Your task to perform on an android device: Open calendar and show me the fourth week of next month Image 0: 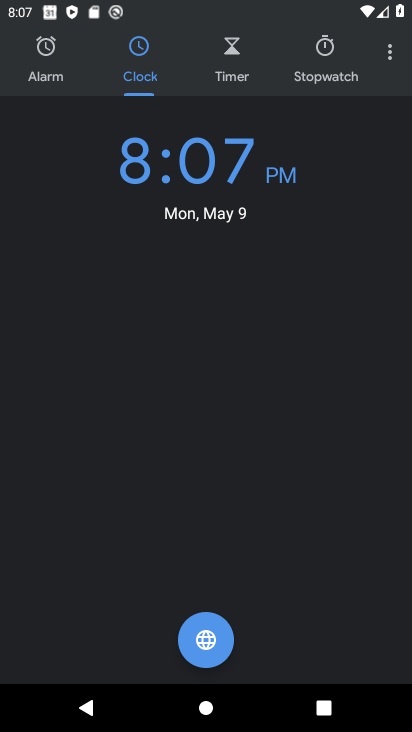
Step 0: press home button
Your task to perform on an android device: Open calendar and show me the fourth week of next month Image 1: 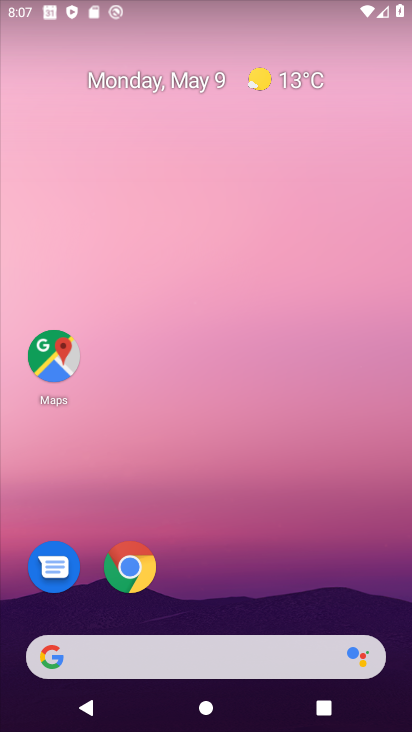
Step 1: drag from (253, 494) to (262, 31)
Your task to perform on an android device: Open calendar and show me the fourth week of next month Image 2: 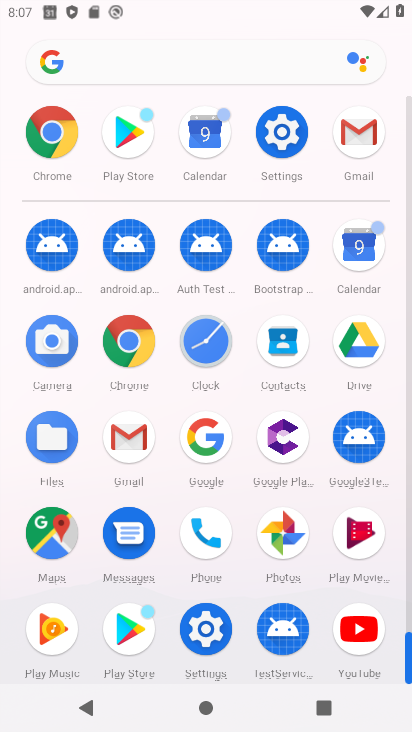
Step 2: click (197, 127)
Your task to perform on an android device: Open calendar and show me the fourth week of next month Image 3: 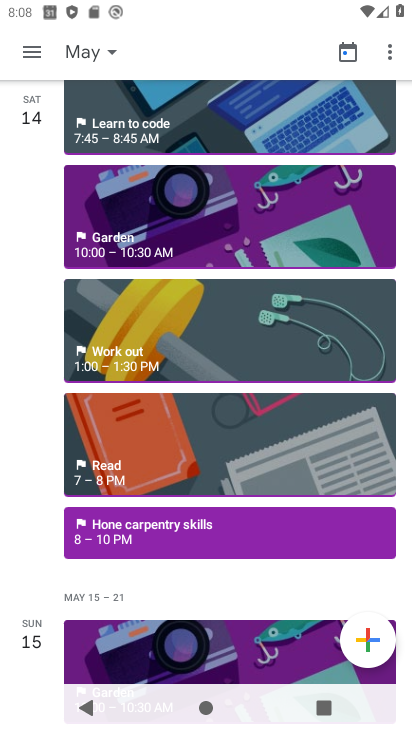
Step 3: click (39, 46)
Your task to perform on an android device: Open calendar and show me the fourth week of next month Image 4: 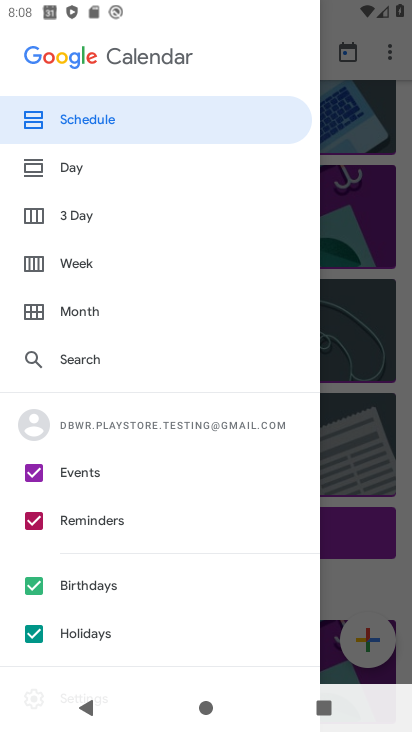
Step 4: click (62, 304)
Your task to perform on an android device: Open calendar and show me the fourth week of next month Image 5: 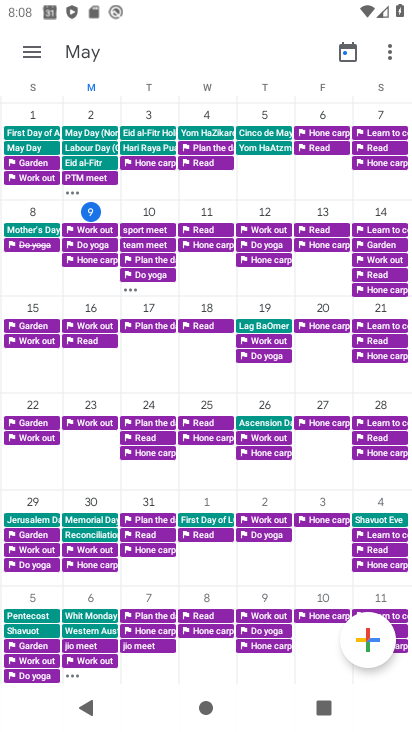
Step 5: drag from (383, 380) to (0, 294)
Your task to perform on an android device: Open calendar and show me the fourth week of next month Image 6: 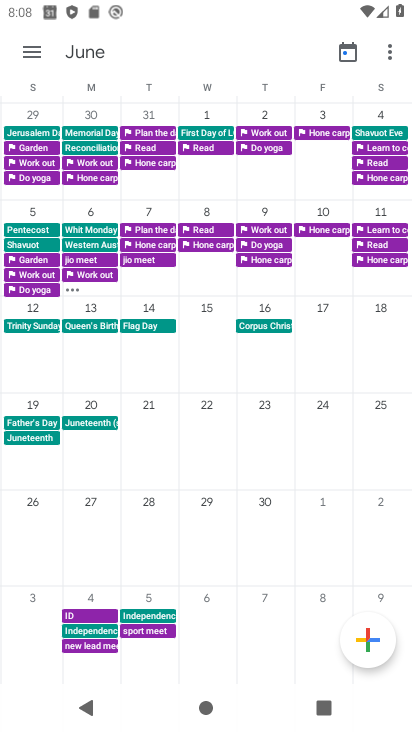
Step 6: click (39, 506)
Your task to perform on an android device: Open calendar and show me the fourth week of next month Image 7: 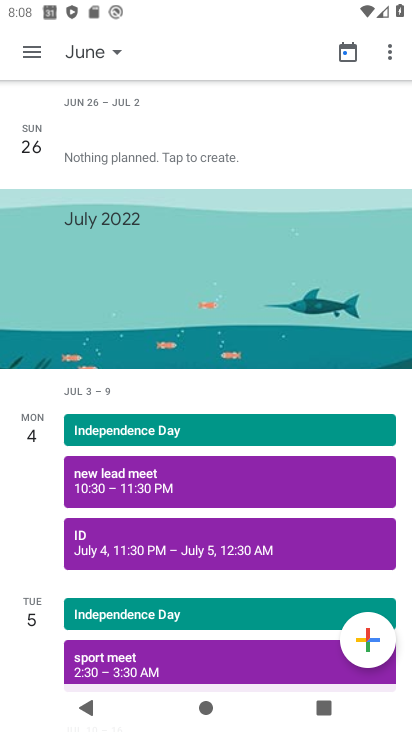
Step 7: click (35, 51)
Your task to perform on an android device: Open calendar and show me the fourth week of next month Image 8: 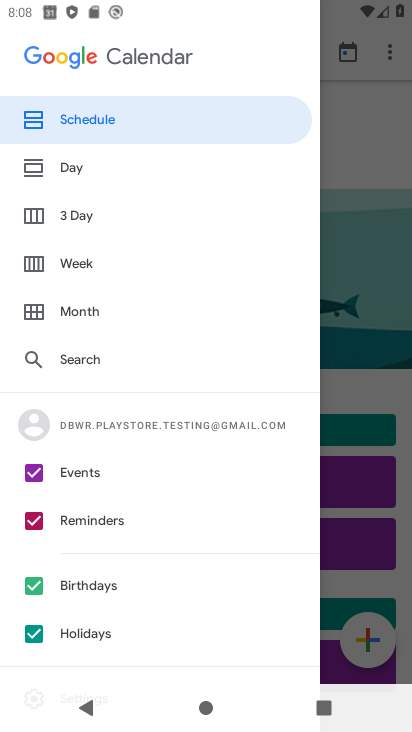
Step 8: click (34, 262)
Your task to perform on an android device: Open calendar and show me the fourth week of next month Image 9: 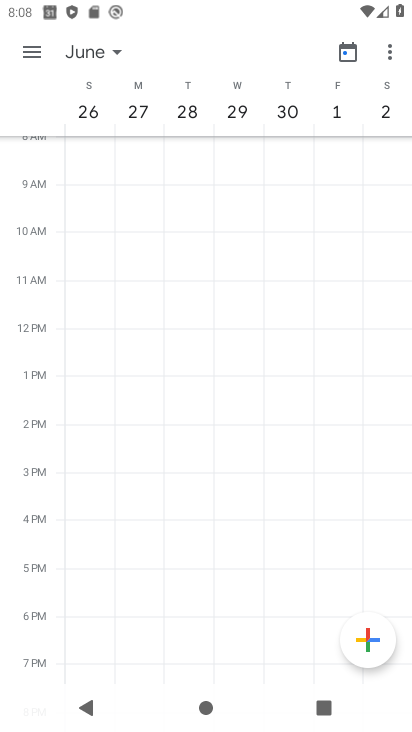
Step 9: task complete